Your task to perform on an android device: create a new album in the google photos Image 0: 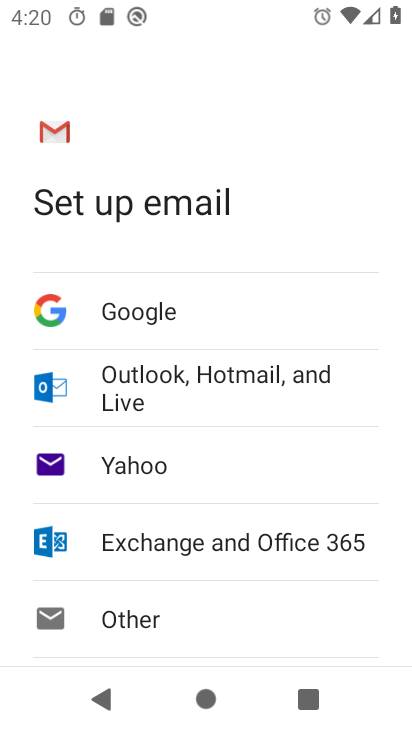
Step 0: press home button
Your task to perform on an android device: create a new album in the google photos Image 1: 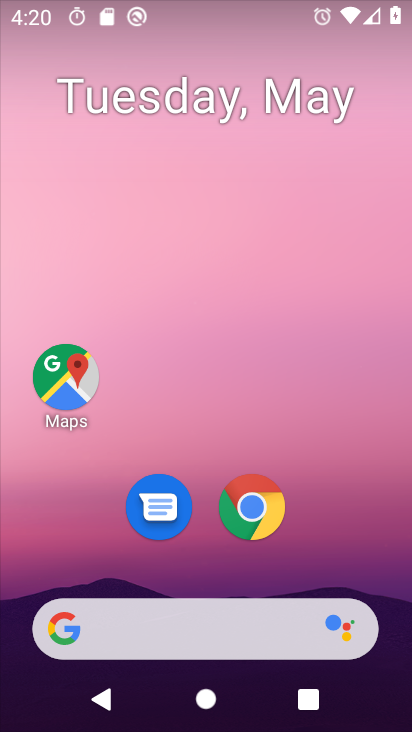
Step 1: drag from (209, 570) to (322, 68)
Your task to perform on an android device: create a new album in the google photos Image 2: 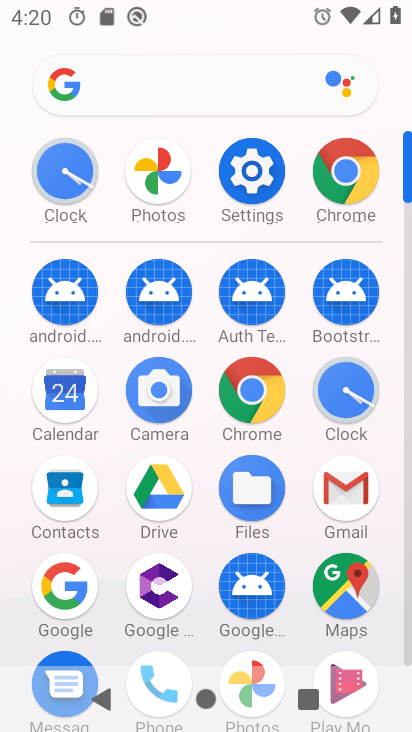
Step 2: click (151, 171)
Your task to perform on an android device: create a new album in the google photos Image 3: 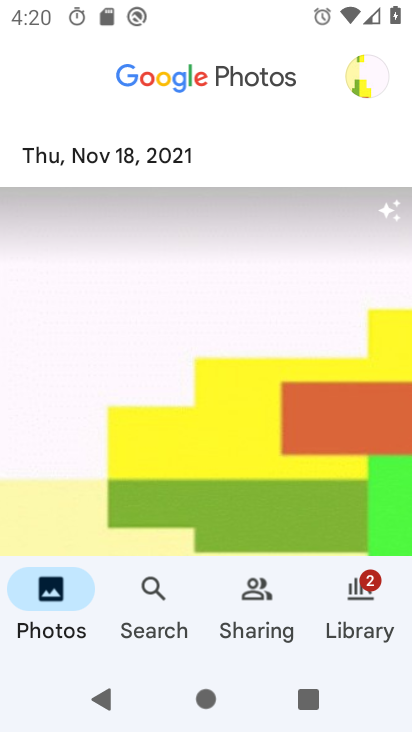
Step 3: click (387, 605)
Your task to perform on an android device: create a new album in the google photos Image 4: 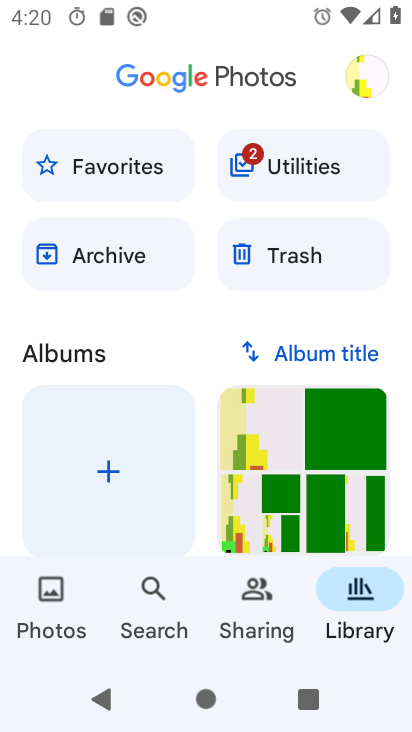
Step 4: click (125, 470)
Your task to perform on an android device: create a new album in the google photos Image 5: 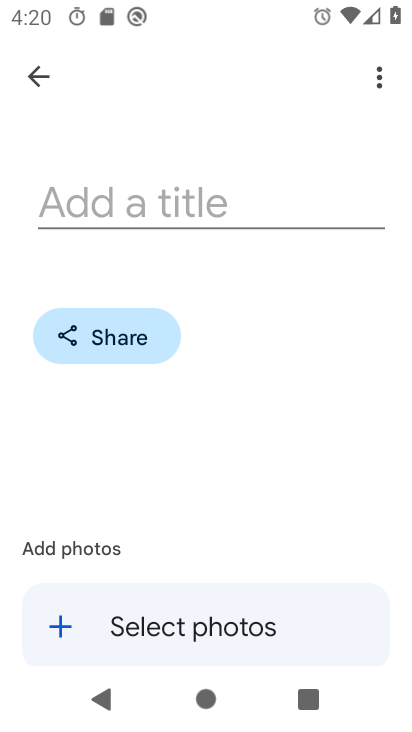
Step 5: click (147, 203)
Your task to perform on an android device: create a new album in the google photos Image 6: 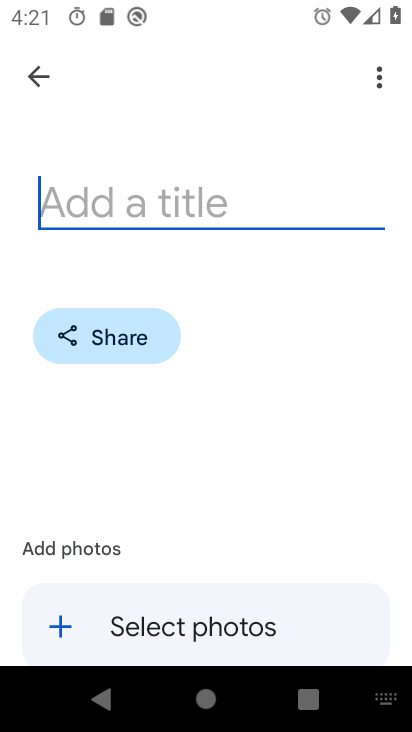
Step 6: type "njmkliop"
Your task to perform on an android device: create a new album in the google photos Image 7: 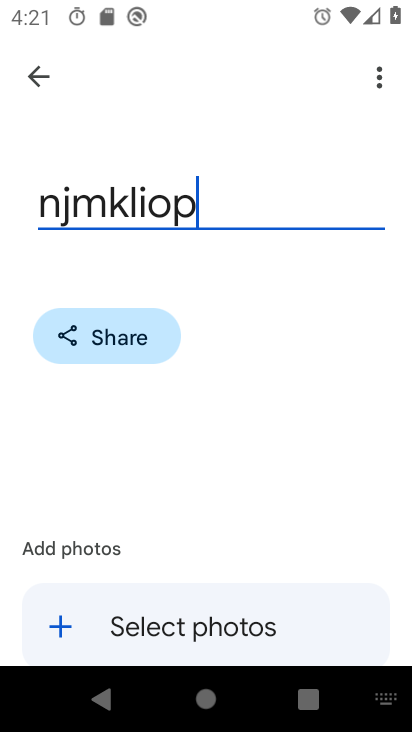
Step 7: click (215, 626)
Your task to perform on an android device: create a new album in the google photos Image 8: 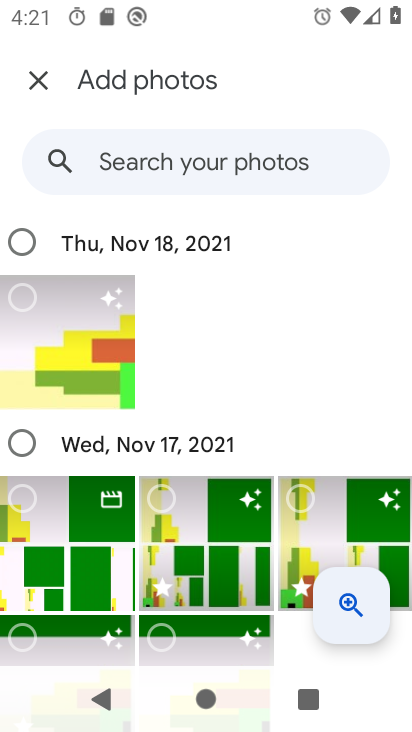
Step 8: click (130, 399)
Your task to perform on an android device: create a new album in the google photos Image 9: 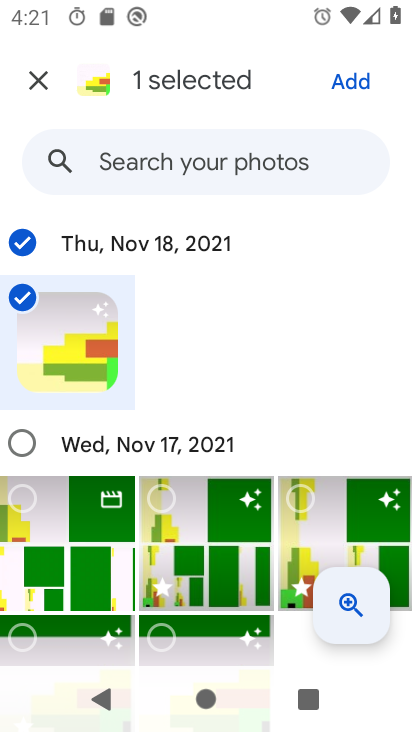
Step 9: click (369, 96)
Your task to perform on an android device: create a new album in the google photos Image 10: 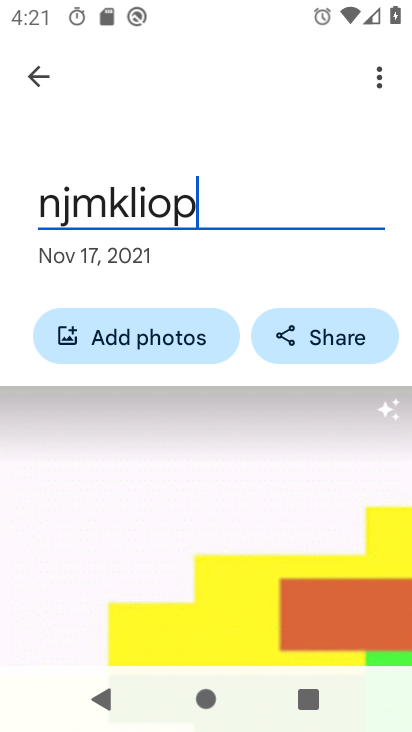
Step 10: task complete